Your task to perform on an android device: Toggle the flashlight Image 0: 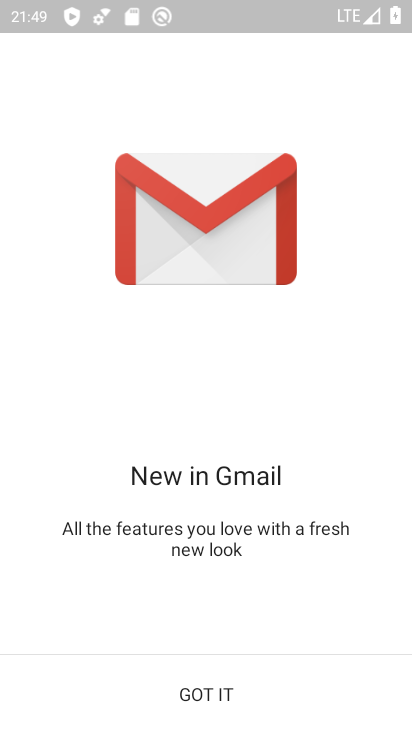
Step 0: press home button
Your task to perform on an android device: Toggle the flashlight Image 1: 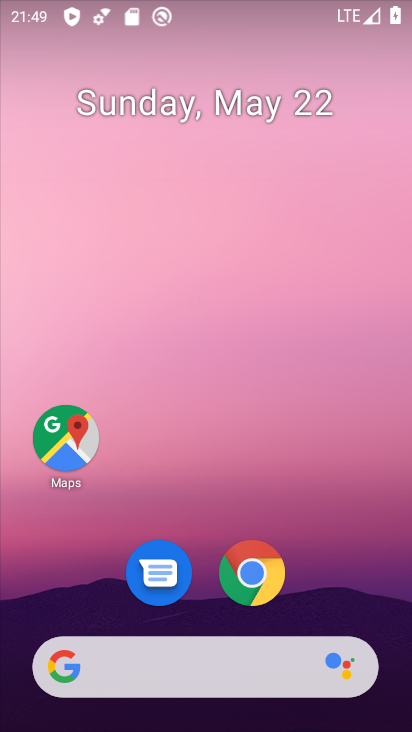
Step 1: task complete